Your task to perform on an android device: turn off location Image 0: 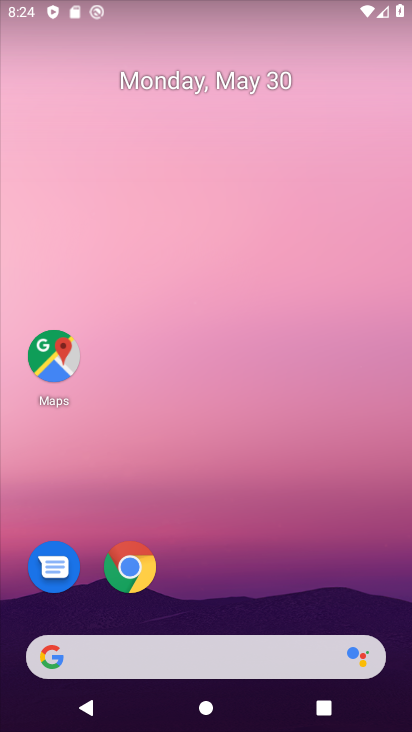
Step 0: drag from (229, 589) to (255, 61)
Your task to perform on an android device: turn off location Image 1: 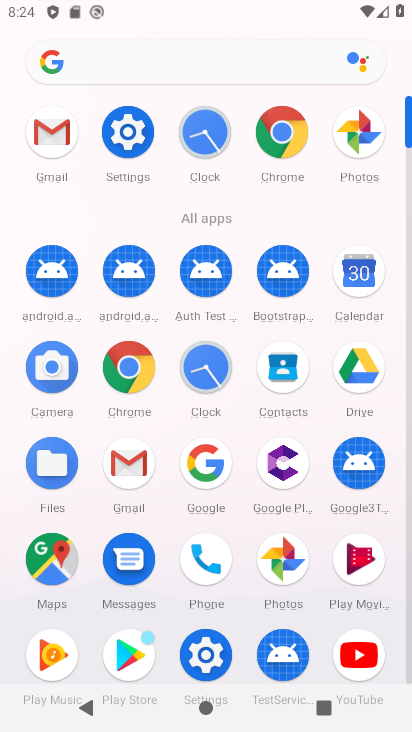
Step 1: click (125, 145)
Your task to perform on an android device: turn off location Image 2: 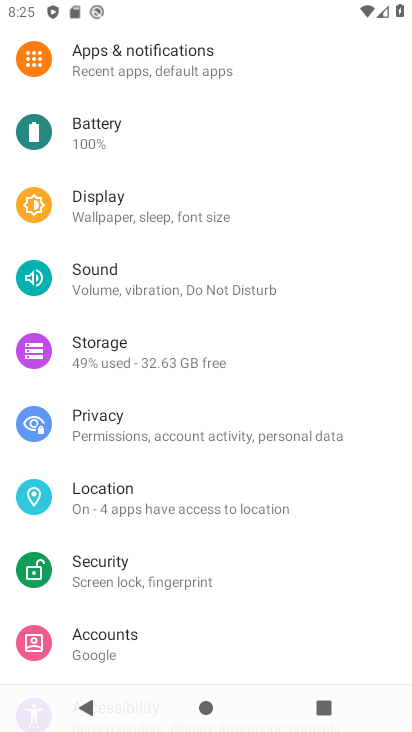
Step 2: click (167, 512)
Your task to perform on an android device: turn off location Image 3: 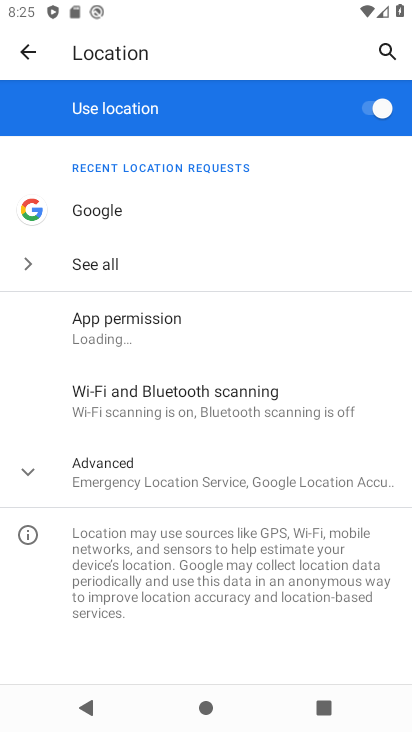
Step 3: click (369, 115)
Your task to perform on an android device: turn off location Image 4: 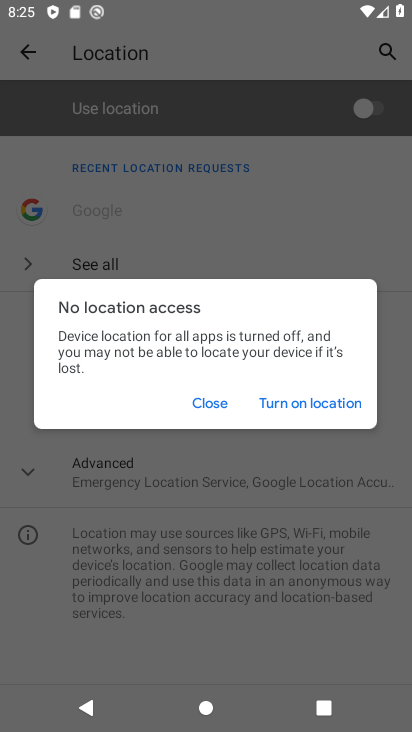
Step 4: task complete